Your task to perform on an android device: turn off location history Image 0: 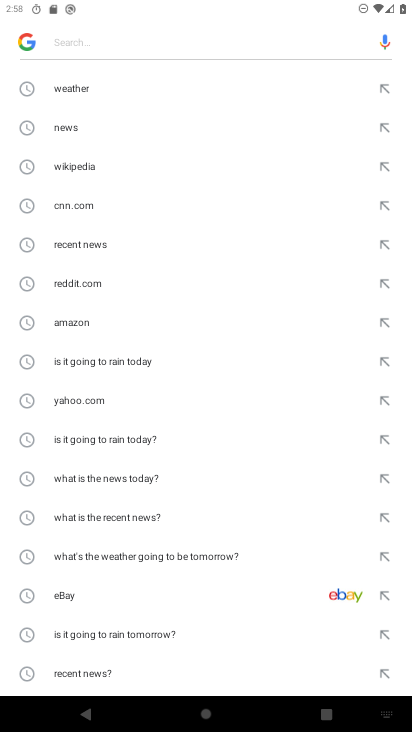
Step 0: press home button
Your task to perform on an android device: turn off location history Image 1: 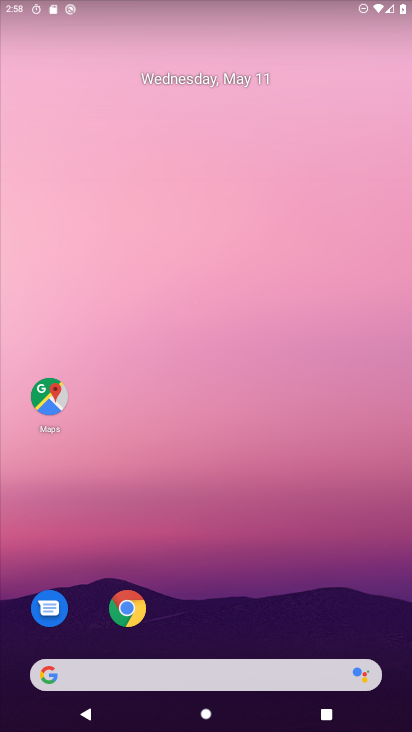
Step 1: drag from (164, 4) to (95, 547)
Your task to perform on an android device: turn off location history Image 2: 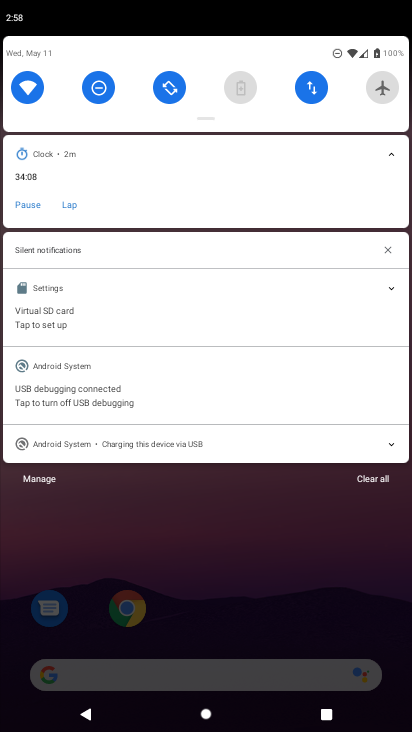
Step 2: drag from (230, 673) to (230, 428)
Your task to perform on an android device: turn off location history Image 3: 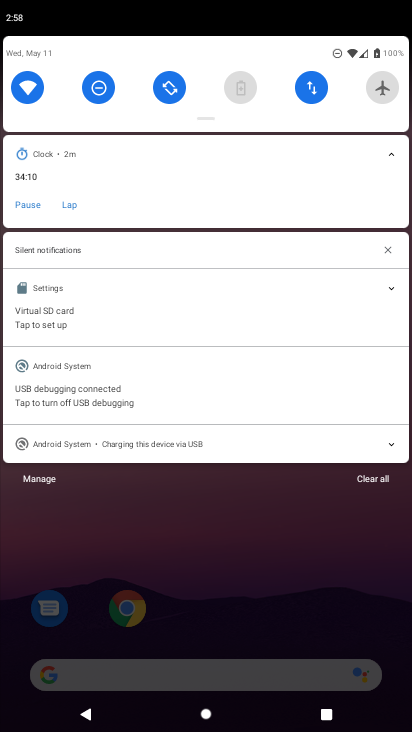
Step 3: type ""
Your task to perform on an android device: turn off location history Image 4: 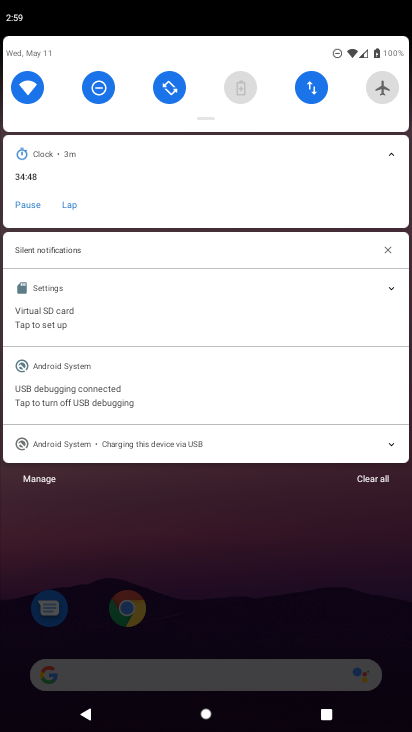
Step 4: task complete